Your task to perform on an android device: Go to internet settings Image 0: 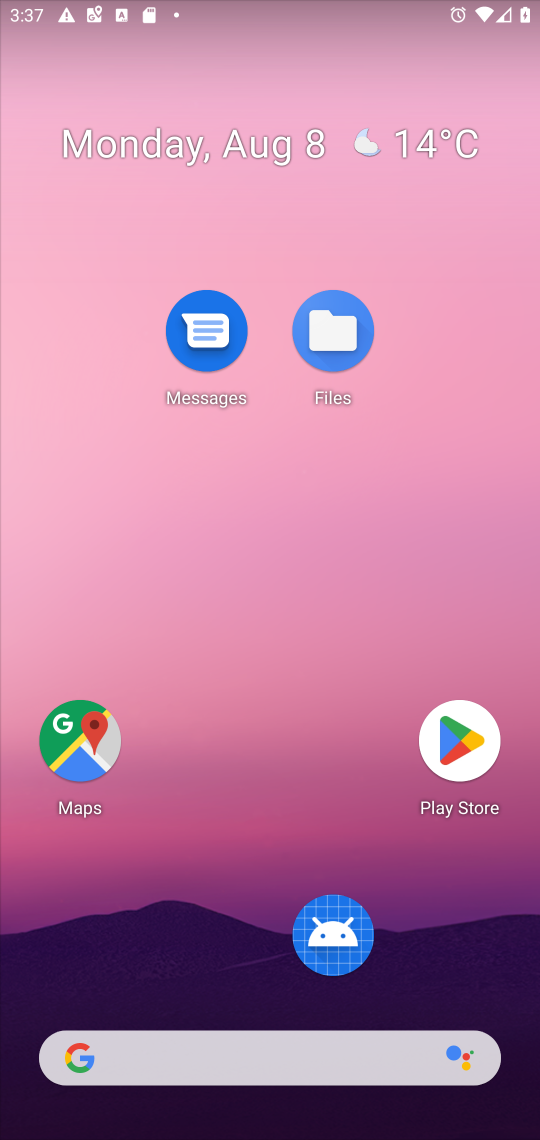
Step 0: drag from (281, 1032) to (264, 520)
Your task to perform on an android device: Go to internet settings Image 1: 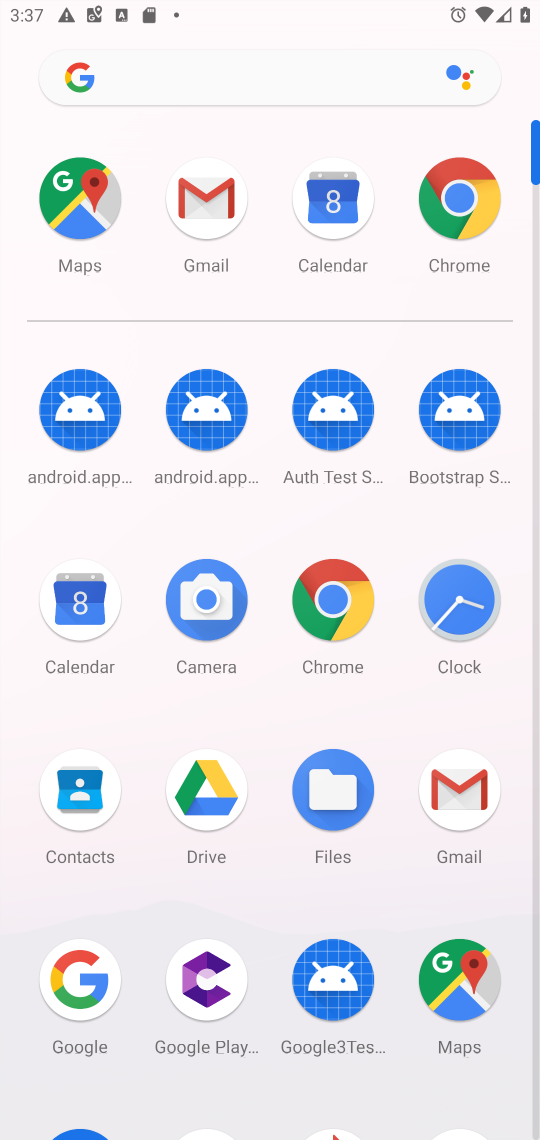
Step 1: drag from (397, 903) to (494, 562)
Your task to perform on an android device: Go to internet settings Image 2: 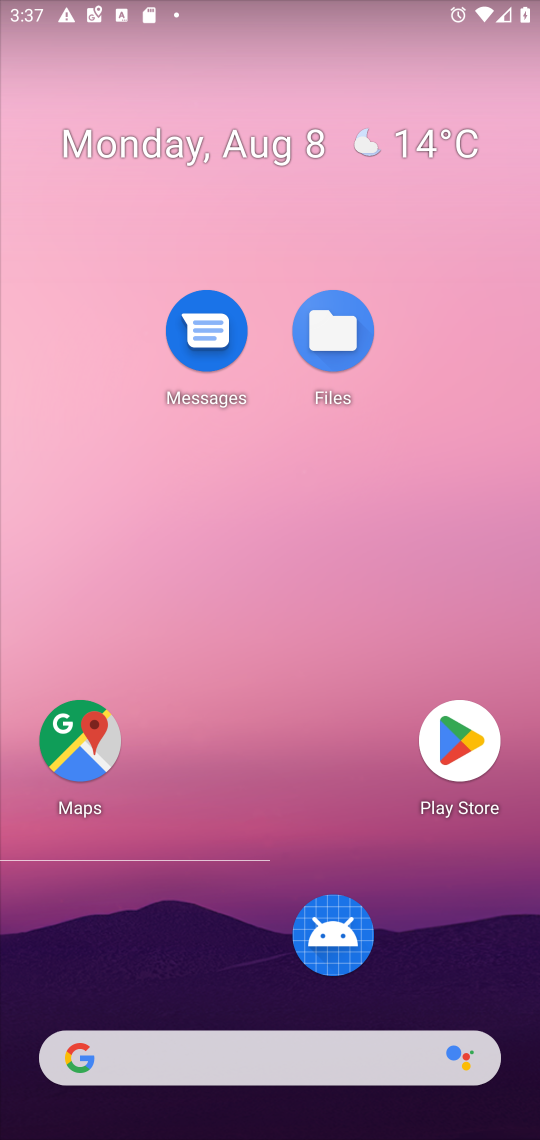
Step 2: press home button
Your task to perform on an android device: Go to internet settings Image 3: 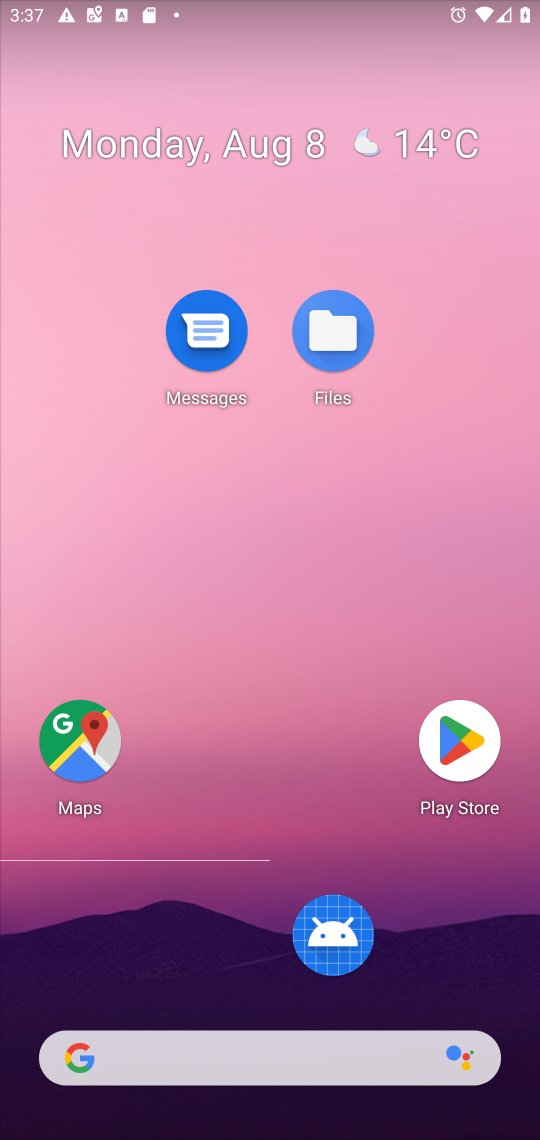
Step 3: click (310, 616)
Your task to perform on an android device: Go to internet settings Image 4: 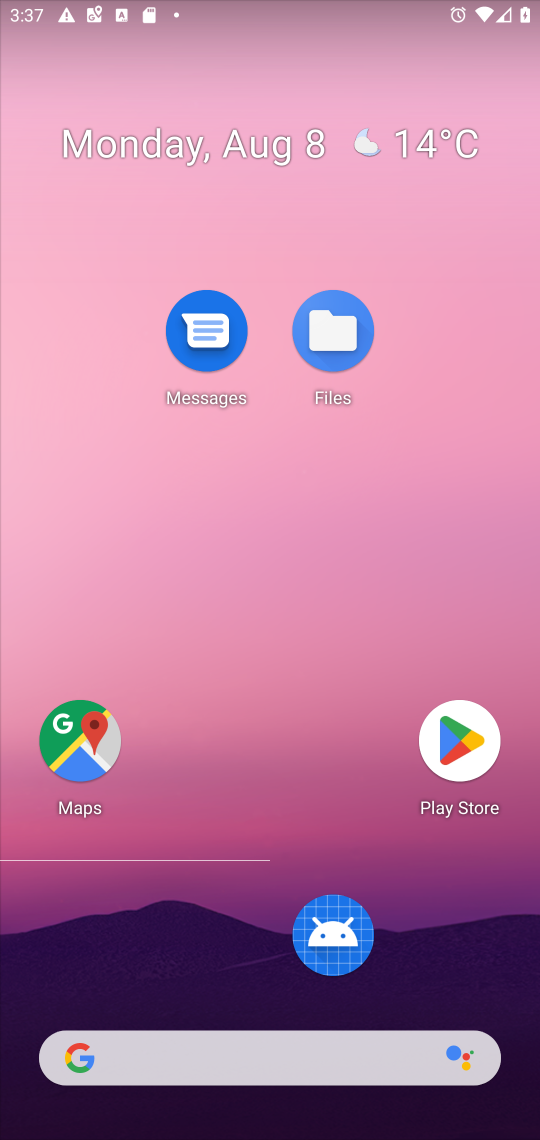
Step 4: drag from (257, 991) to (247, 68)
Your task to perform on an android device: Go to internet settings Image 5: 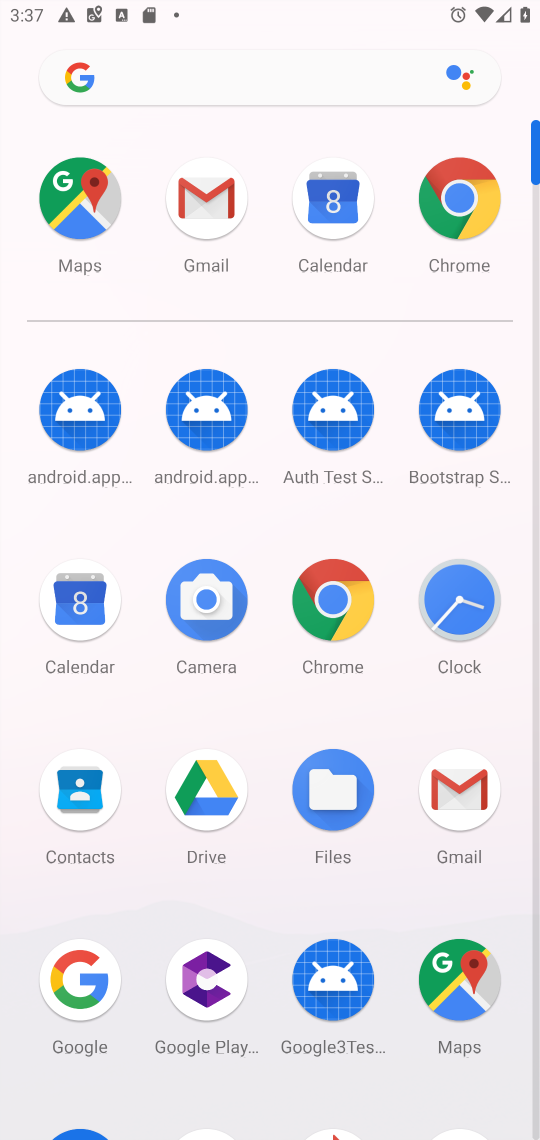
Step 5: drag from (257, 1018) to (291, 344)
Your task to perform on an android device: Go to internet settings Image 6: 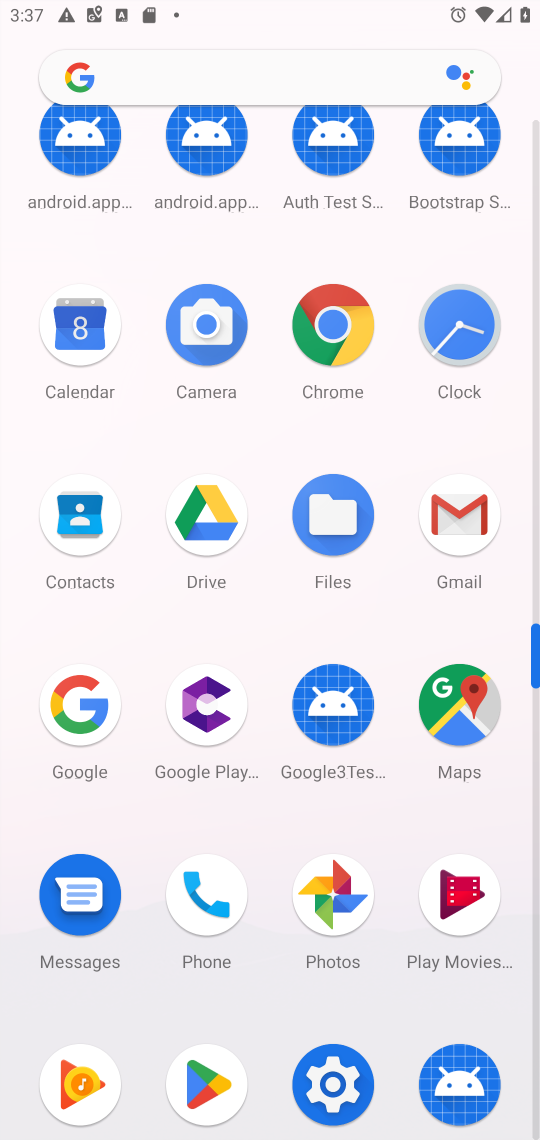
Step 6: click (345, 1076)
Your task to perform on an android device: Go to internet settings Image 7: 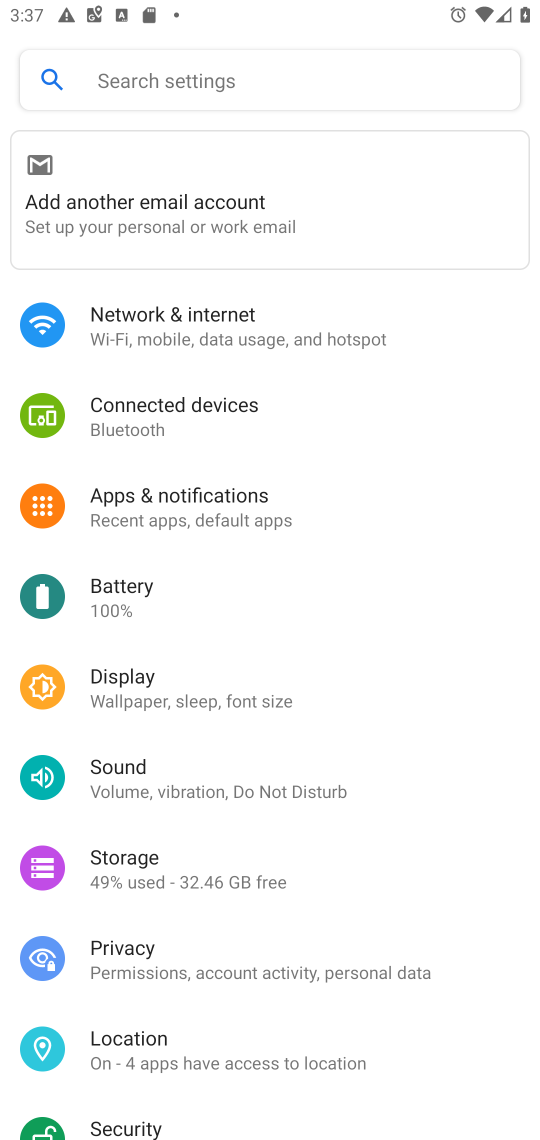
Step 7: click (293, 319)
Your task to perform on an android device: Go to internet settings Image 8: 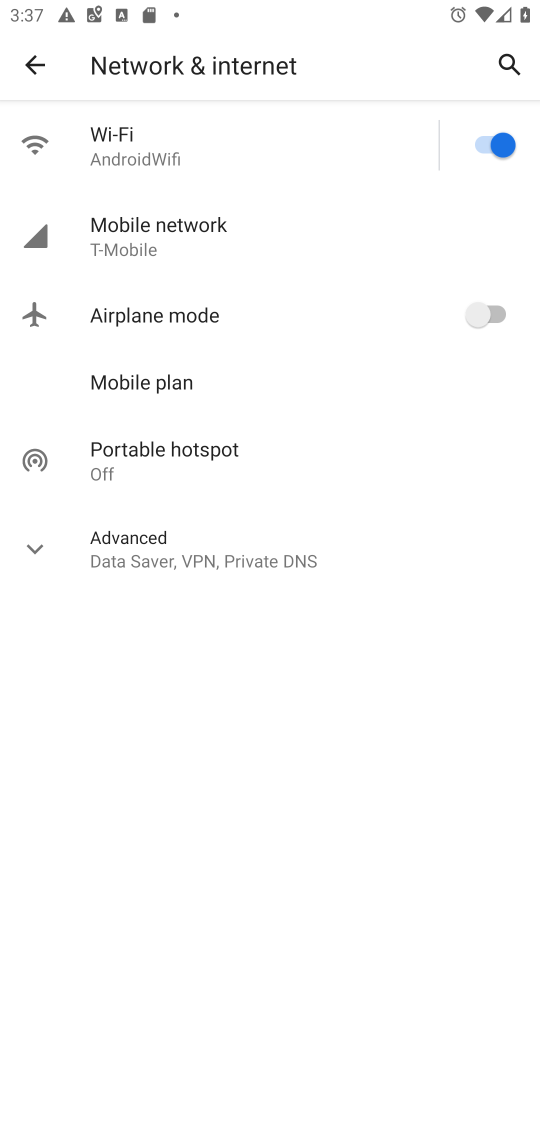
Step 8: task complete